Your task to perform on an android device: Go to Google Image 0: 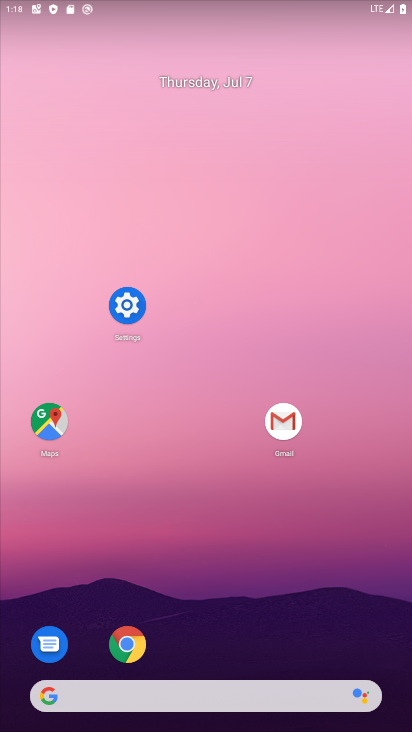
Step 0: drag from (359, 517) to (280, 113)
Your task to perform on an android device: Go to Google Image 1: 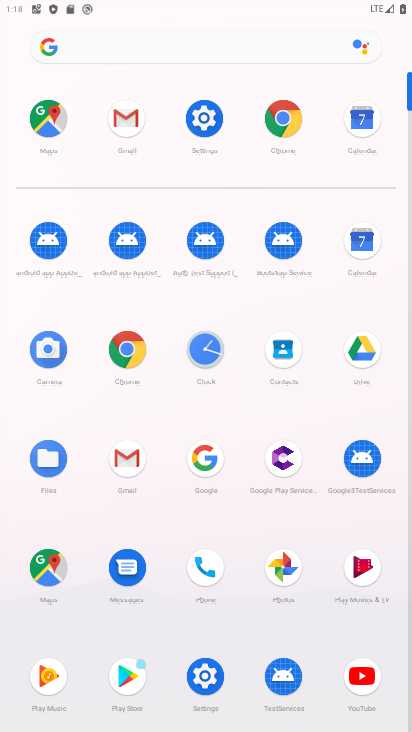
Step 1: click (206, 458)
Your task to perform on an android device: Go to Google Image 2: 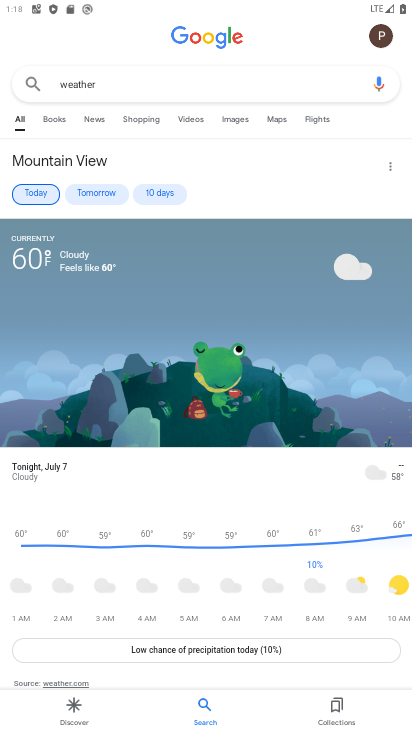
Step 2: press back button
Your task to perform on an android device: Go to Google Image 3: 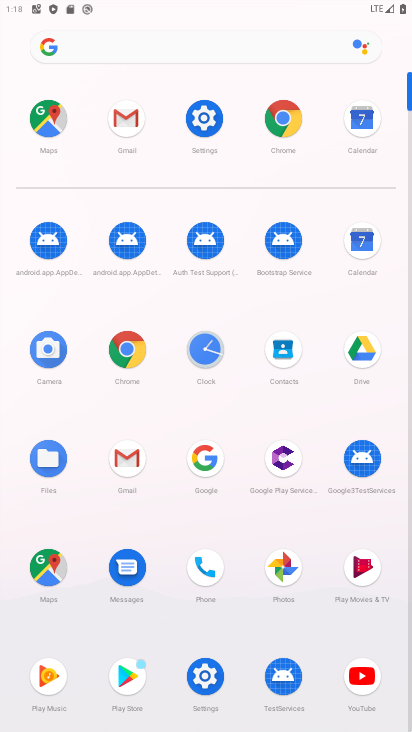
Step 3: click (202, 458)
Your task to perform on an android device: Go to Google Image 4: 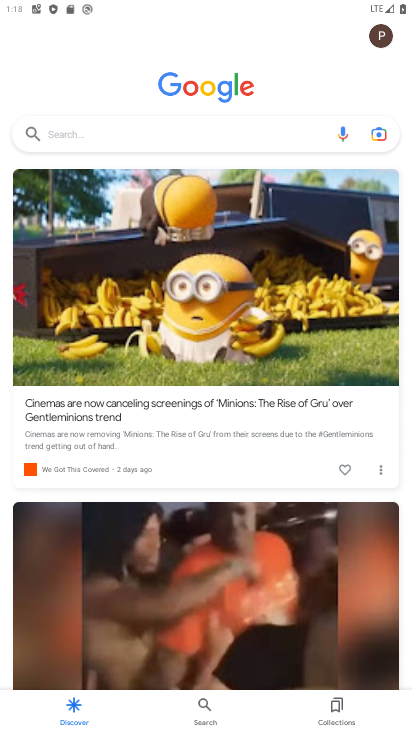
Step 4: task complete